Your task to perform on an android device: Check the news Image 0: 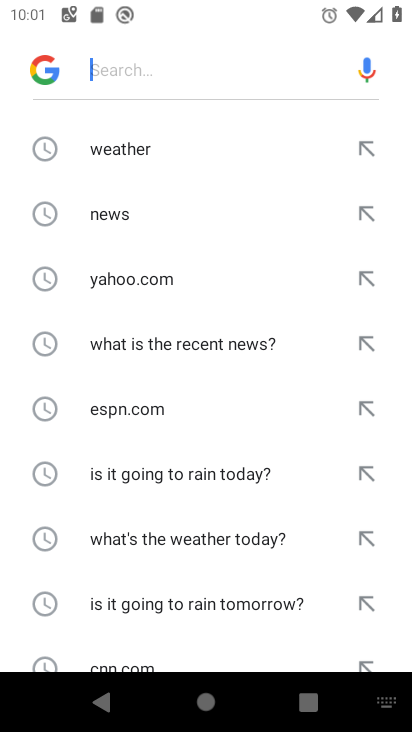
Step 0: press home button
Your task to perform on an android device: Check the news Image 1: 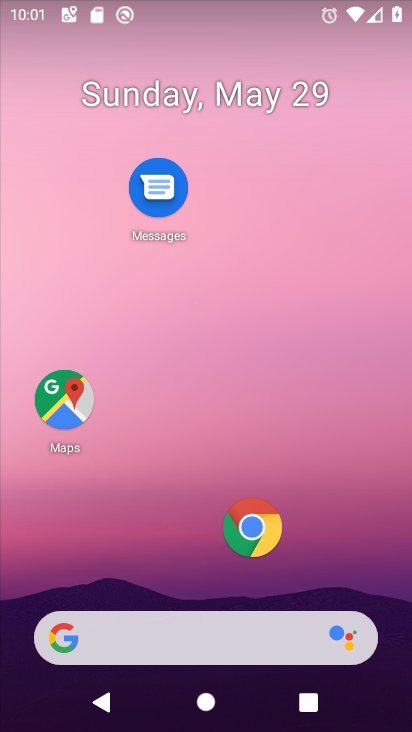
Step 1: task complete